Your task to perform on an android device: Open Google Chrome Image 0: 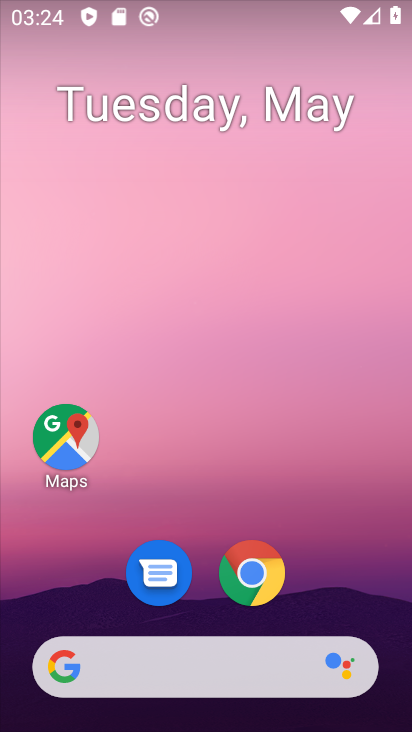
Step 0: click (254, 564)
Your task to perform on an android device: Open Google Chrome Image 1: 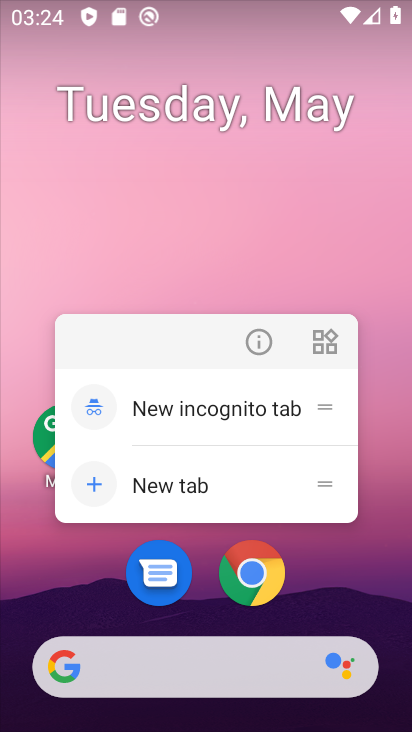
Step 1: click (258, 570)
Your task to perform on an android device: Open Google Chrome Image 2: 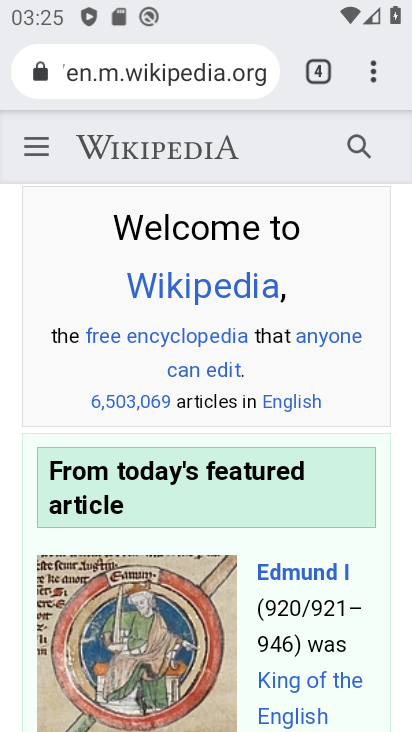
Step 2: task complete